Your task to perform on an android device: add a contact Image 0: 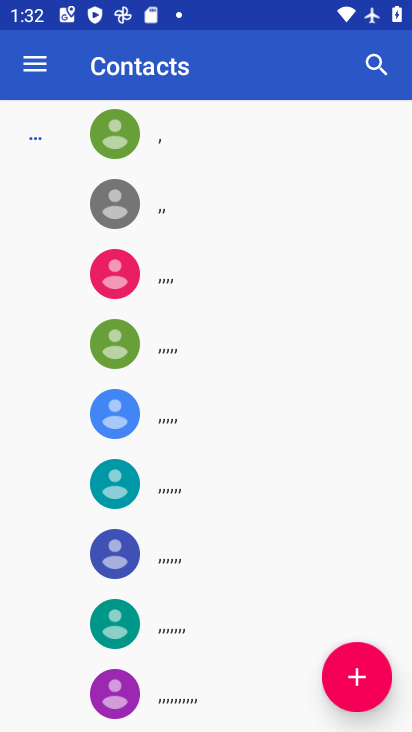
Step 0: click (355, 671)
Your task to perform on an android device: add a contact Image 1: 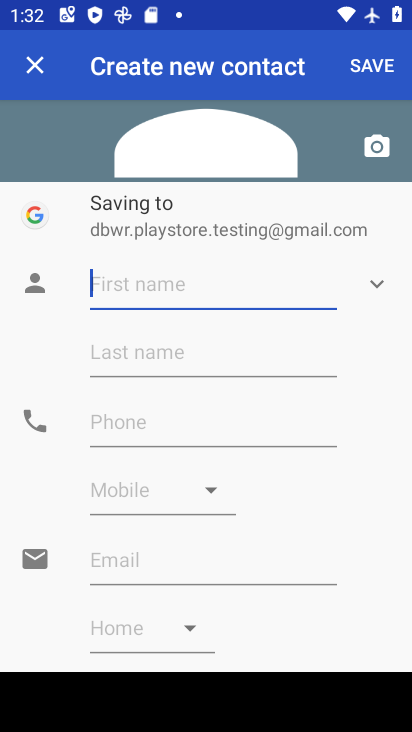
Step 1: type "sdfgaaaa"
Your task to perform on an android device: add a contact Image 2: 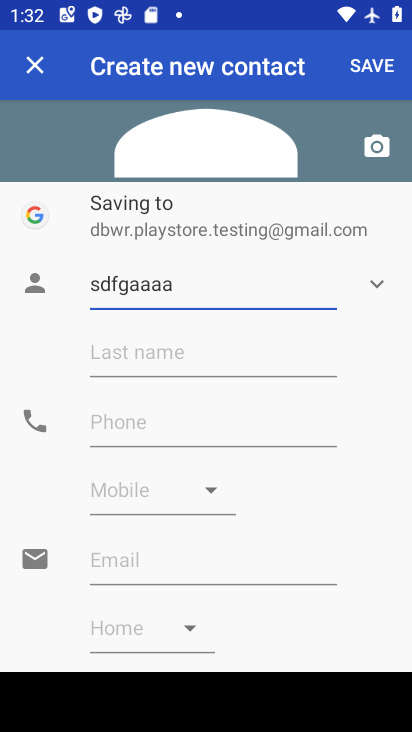
Step 2: click (122, 415)
Your task to perform on an android device: add a contact Image 3: 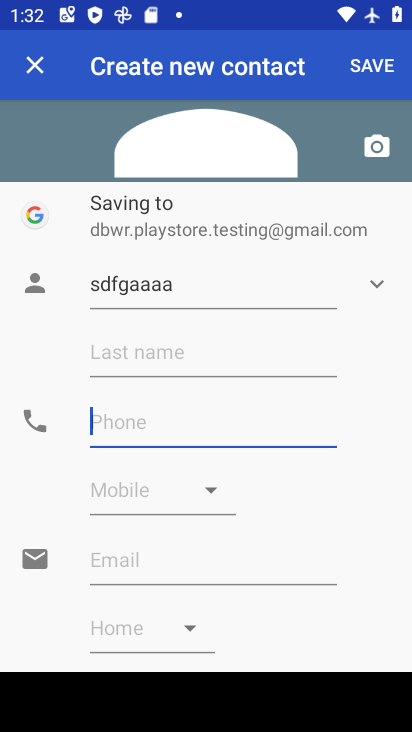
Step 3: type "55555555"
Your task to perform on an android device: add a contact Image 4: 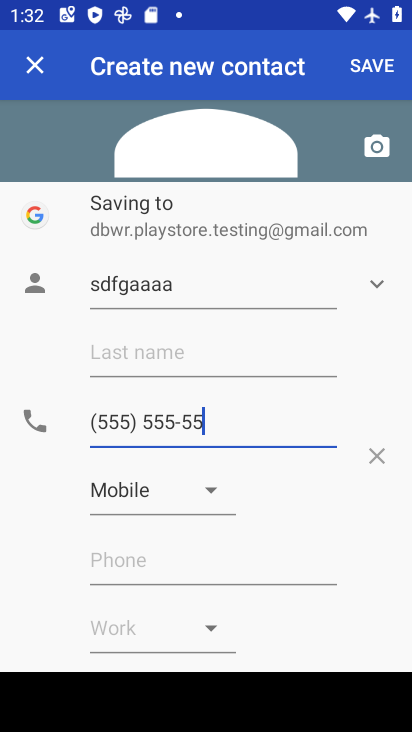
Step 4: click (374, 65)
Your task to perform on an android device: add a contact Image 5: 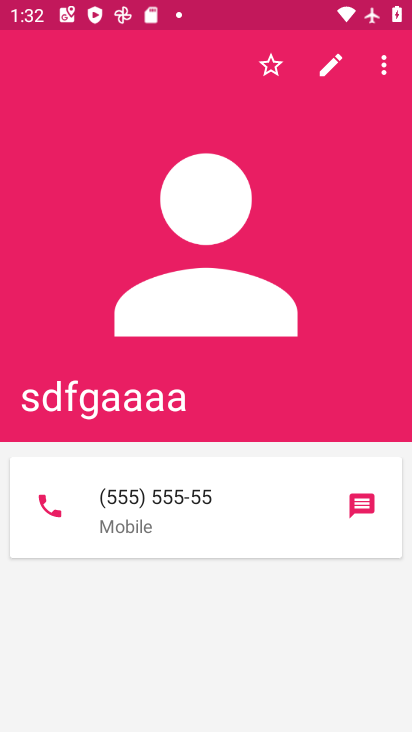
Step 5: task complete